Your task to perform on an android device: What's the weather going to be this weekend? Image 0: 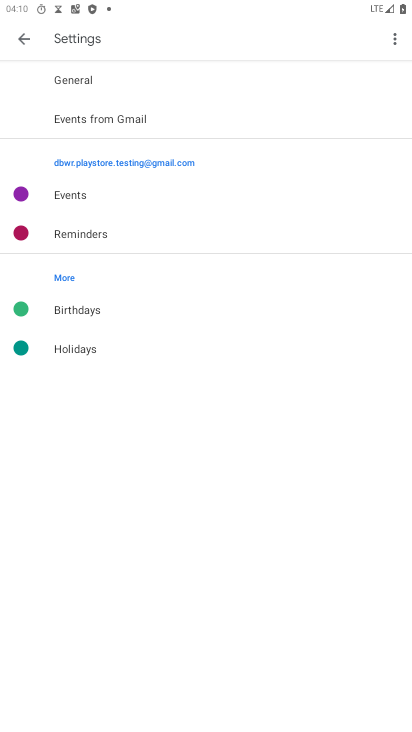
Step 0: press home button
Your task to perform on an android device: What's the weather going to be this weekend? Image 1: 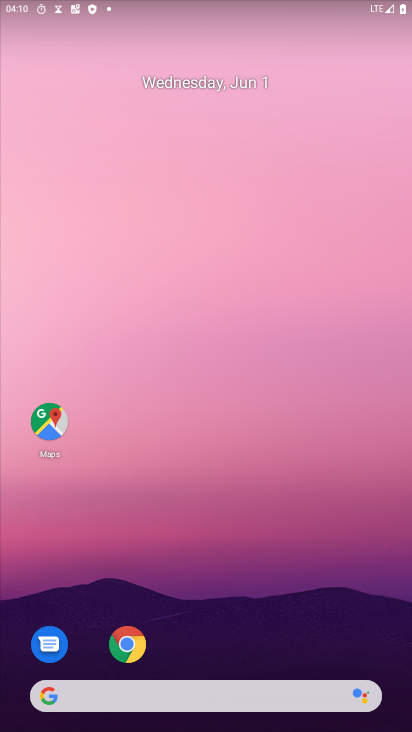
Step 1: click (251, 693)
Your task to perform on an android device: What's the weather going to be this weekend? Image 2: 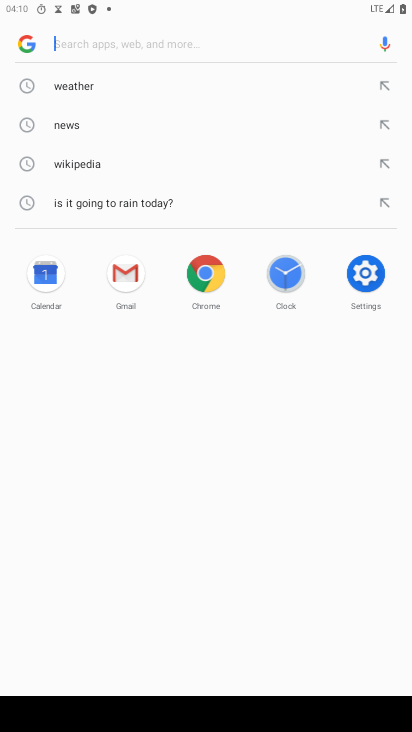
Step 2: type "What's the weather going to be this weekend?"
Your task to perform on an android device: What's the weather going to be this weekend? Image 3: 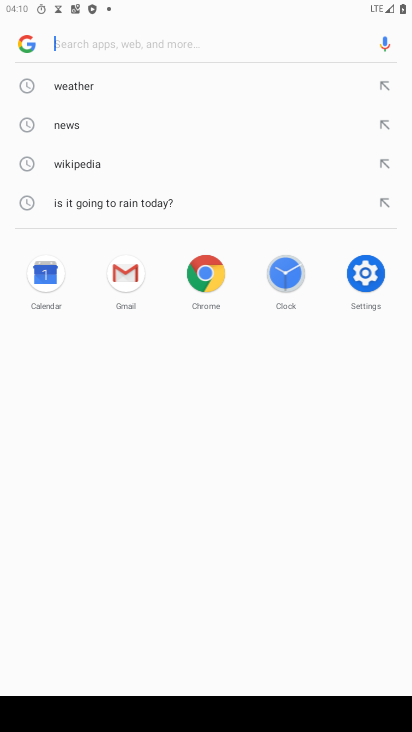
Step 3: click (148, 41)
Your task to perform on an android device: What's the weather going to be this weekend? Image 4: 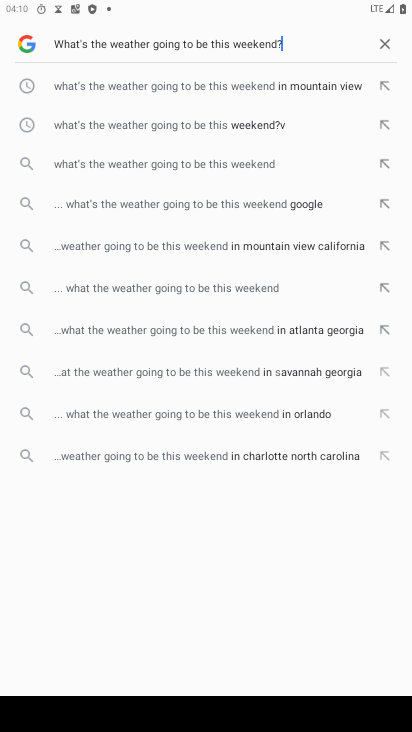
Step 4: click (145, 41)
Your task to perform on an android device: What's the weather going to be this weekend? Image 5: 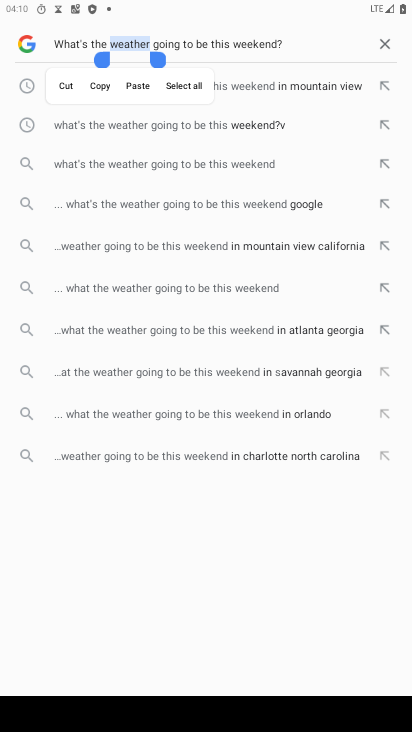
Step 5: click (185, 126)
Your task to perform on an android device: What's the weather going to be this weekend? Image 6: 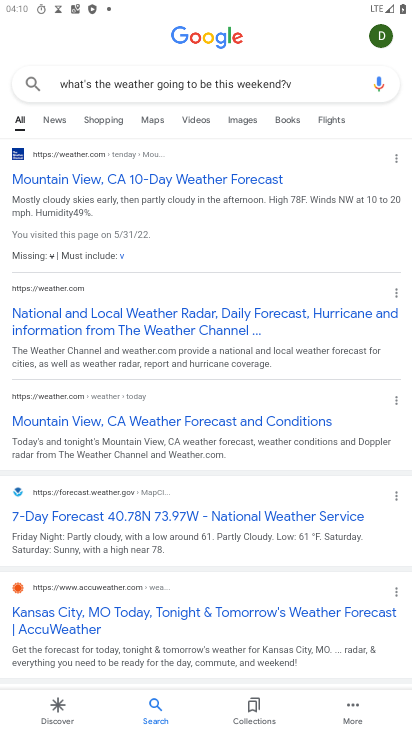
Step 6: task complete